Your task to perform on an android device: Search for Italian restaurants on Maps Image 0: 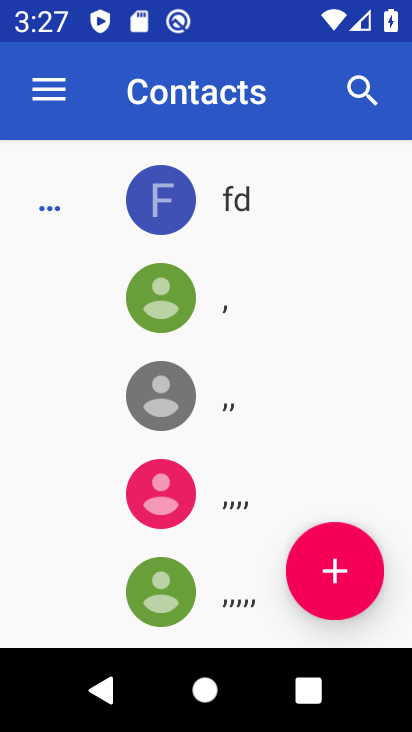
Step 0: press home button
Your task to perform on an android device: Search for Italian restaurants on Maps Image 1: 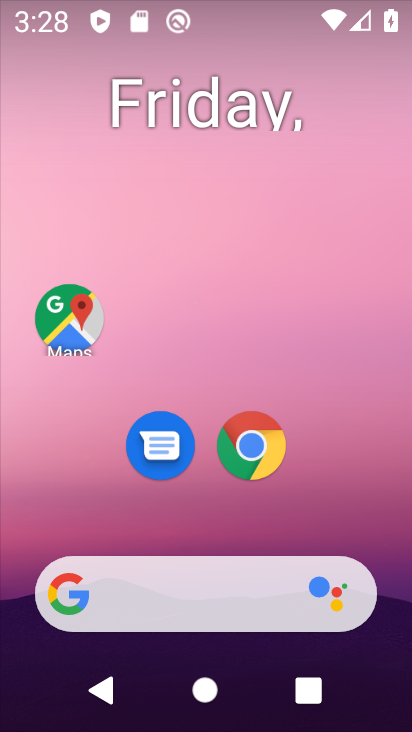
Step 1: click (40, 330)
Your task to perform on an android device: Search for Italian restaurants on Maps Image 2: 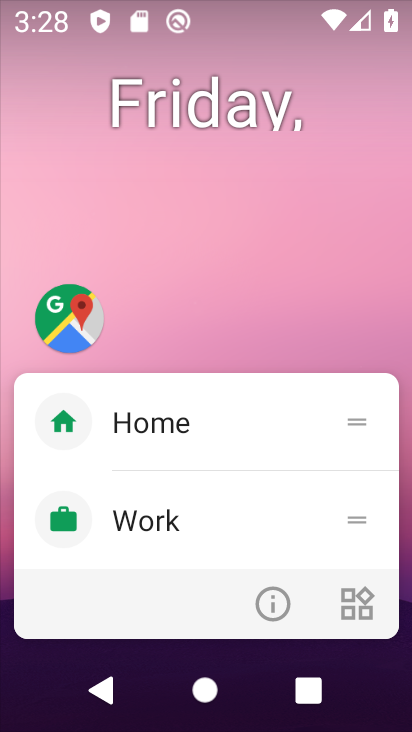
Step 2: click (65, 305)
Your task to perform on an android device: Search for Italian restaurants on Maps Image 3: 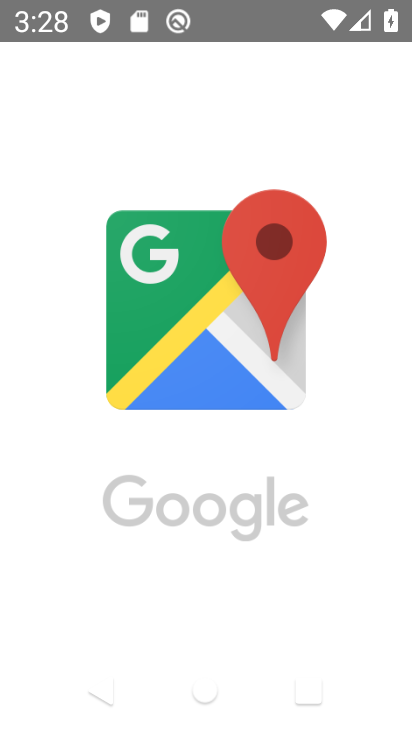
Step 3: click (64, 309)
Your task to perform on an android device: Search for Italian restaurants on Maps Image 4: 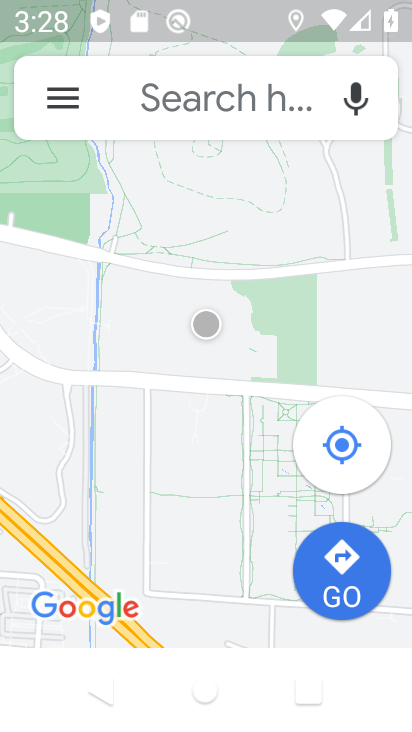
Step 4: click (192, 102)
Your task to perform on an android device: Search for Italian restaurants on Maps Image 5: 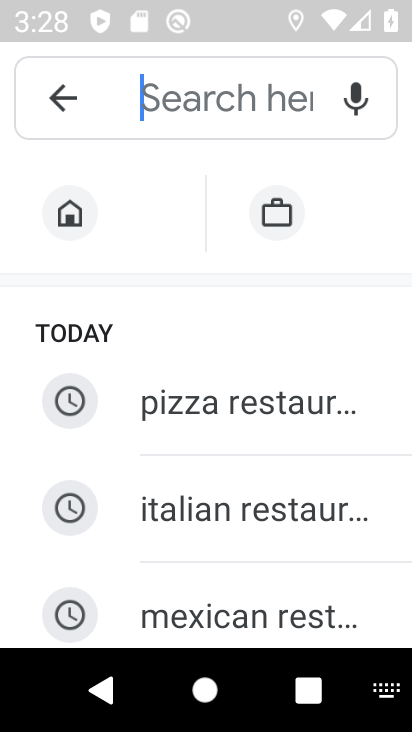
Step 5: type "italian restaurants"
Your task to perform on an android device: Search for Italian restaurants on Maps Image 6: 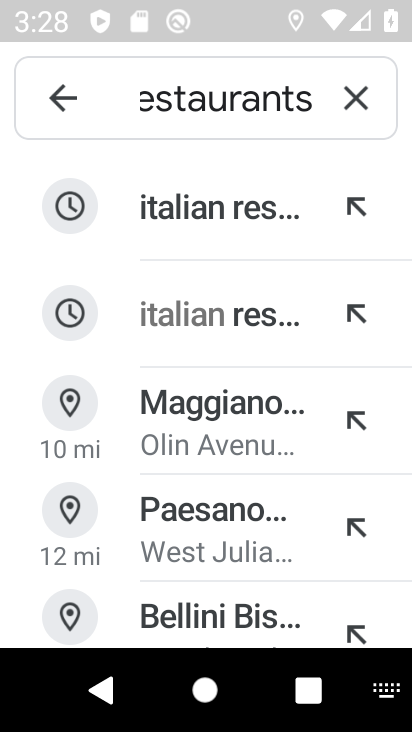
Step 6: click (213, 227)
Your task to perform on an android device: Search for Italian restaurants on Maps Image 7: 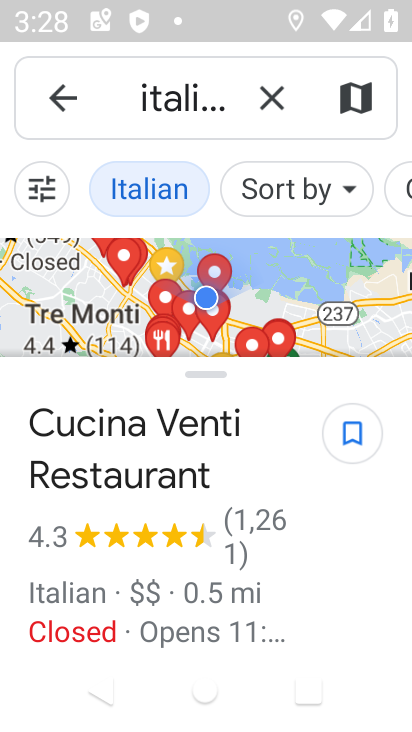
Step 7: task complete